Your task to perform on an android device: Open Reddit.com Image 0: 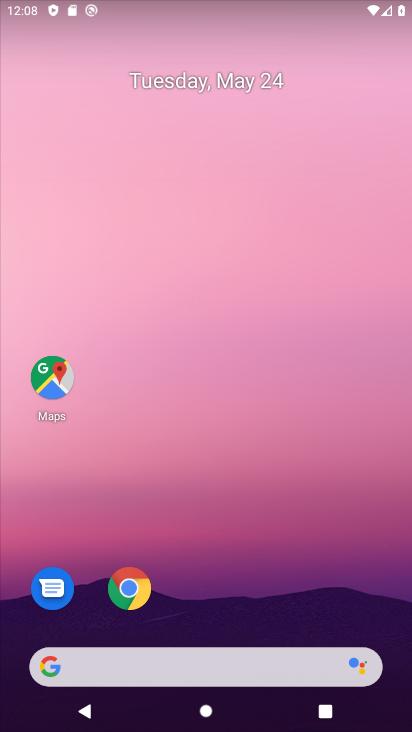
Step 0: click (115, 591)
Your task to perform on an android device: Open Reddit.com Image 1: 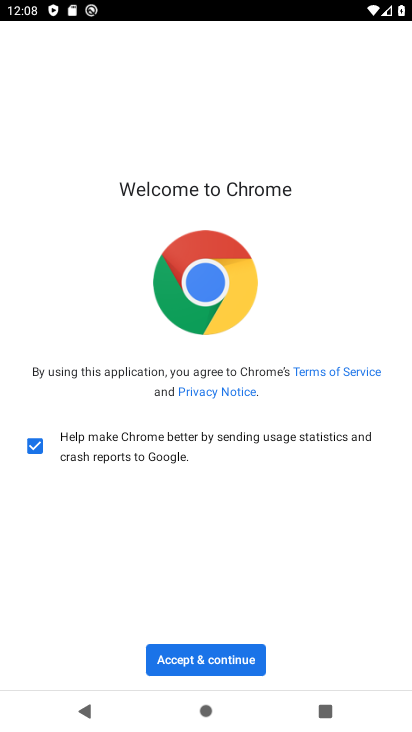
Step 1: click (180, 669)
Your task to perform on an android device: Open Reddit.com Image 2: 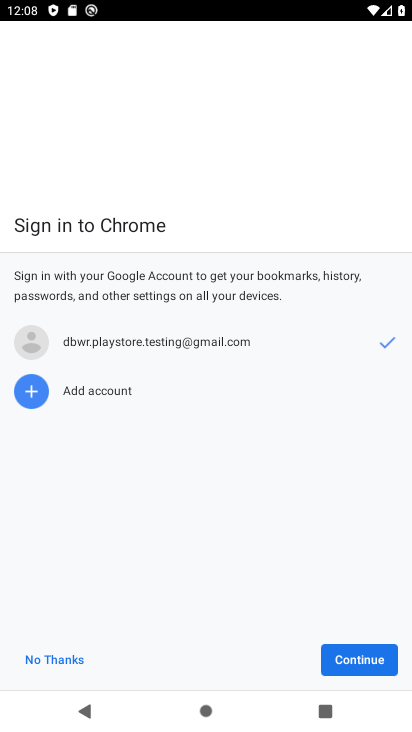
Step 2: click (350, 655)
Your task to perform on an android device: Open Reddit.com Image 3: 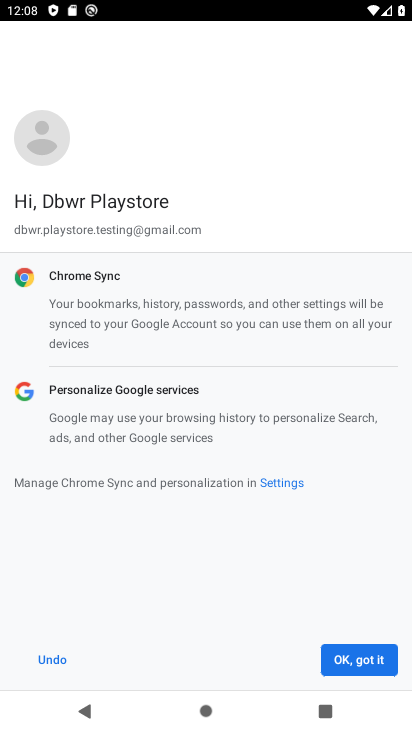
Step 3: click (350, 655)
Your task to perform on an android device: Open Reddit.com Image 4: 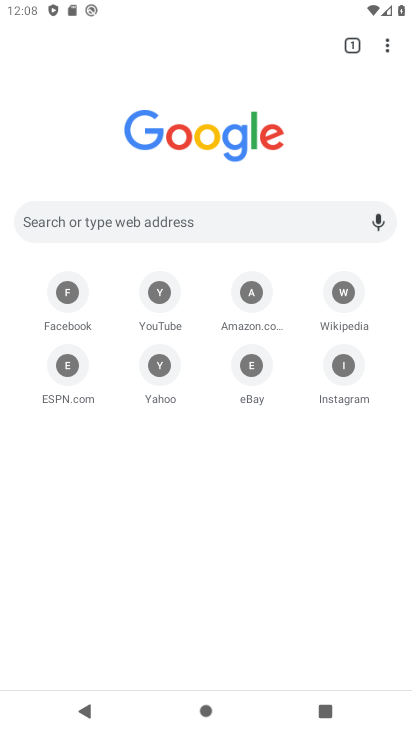
Step 4: click (350, 655)
Your task to perform on an android device: Open Reddit.com Image 5: 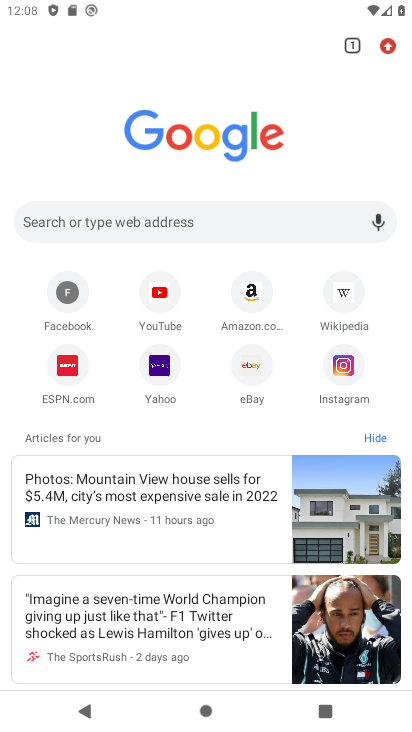
Step 5: click (350, 655)
Your task to perform on an android device: Open Reddit.com Image 6: 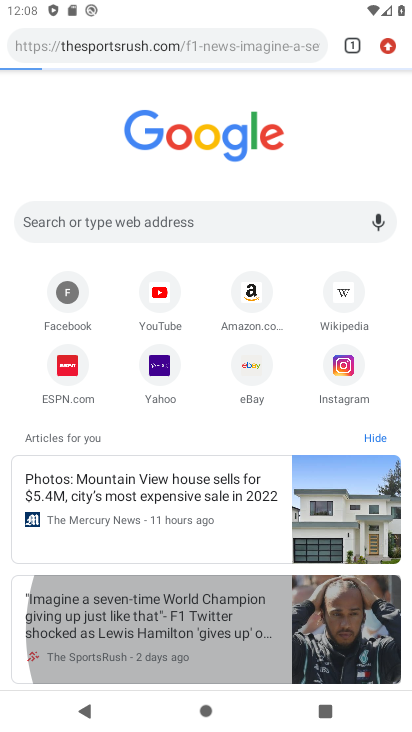
Step 6: click (350, 655)
Your task to perform on an android device: Open Reddit.com Image 7: 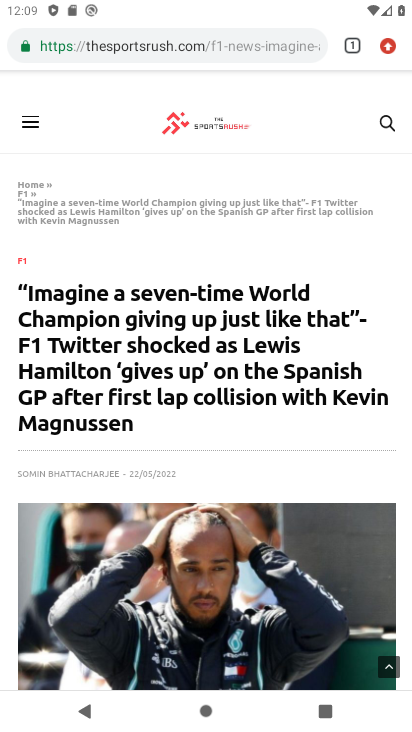
Step 7: click (350, 655)
Your task to perform on an android device: Open Reddit.com Image 8: 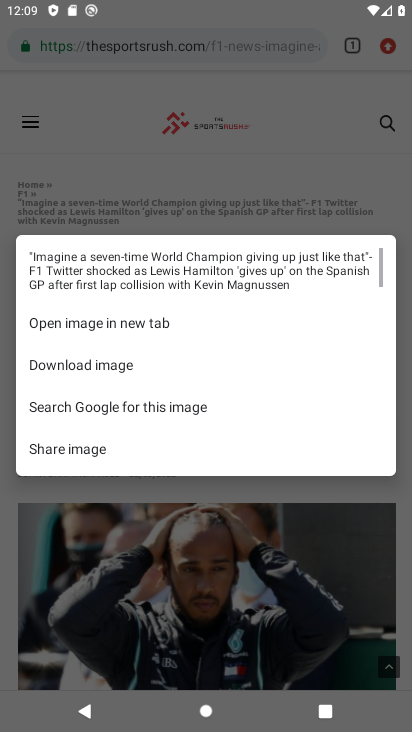
Step 8: click (350, 655)
Your task to perform on an android device: Open Reddit.com Image 9: 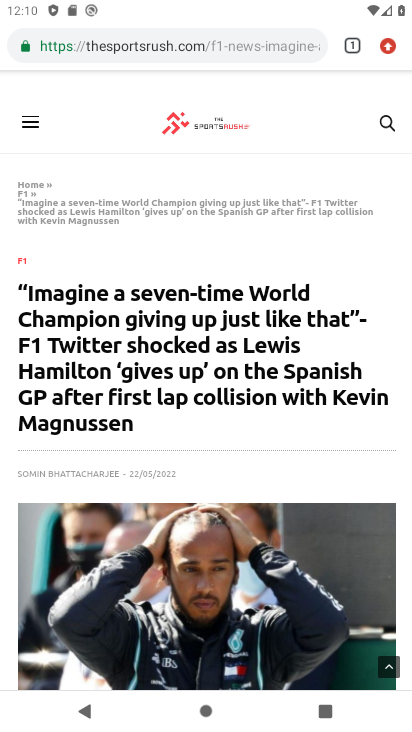
Step 9: click (216, 50)
Your task to perform on an android device: Open Reddit.com Image 10: 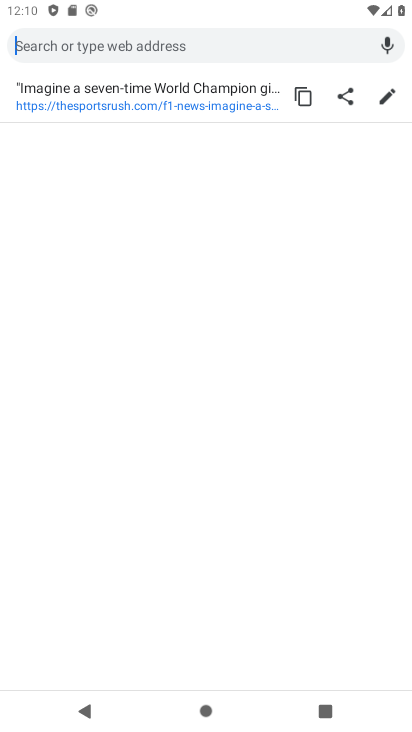
Step 10: click (199, 49)
Your task to perform on an android device: Open Reddit.com Image 11: 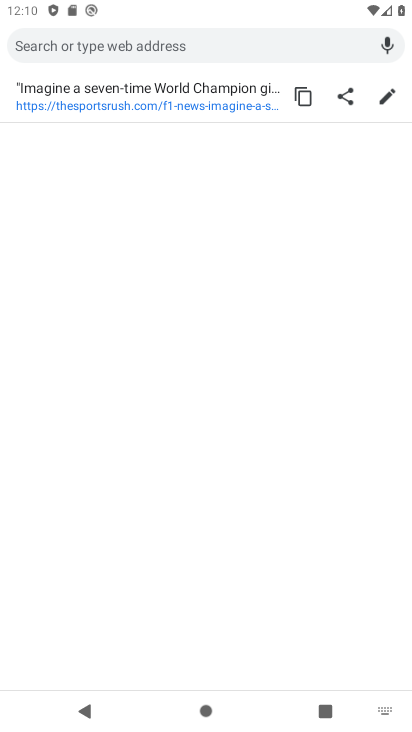
Step 11: click (253, 43)
Your task to perform on an android device: Open Reddit.com Image 12: 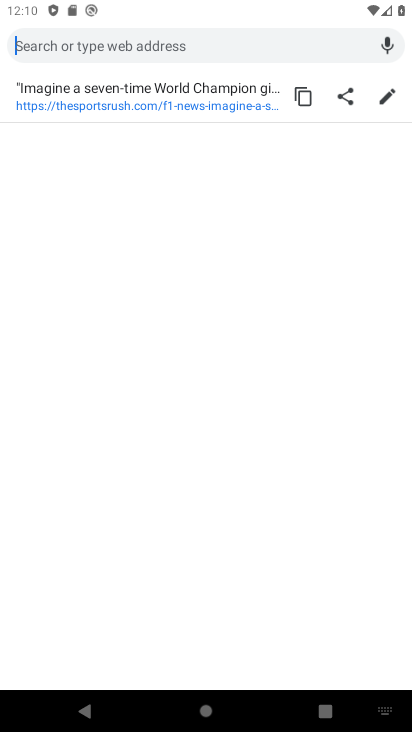
Step 12: click (63, 41)
Your task to perform on an android device: Open Reddit.com Image 13: 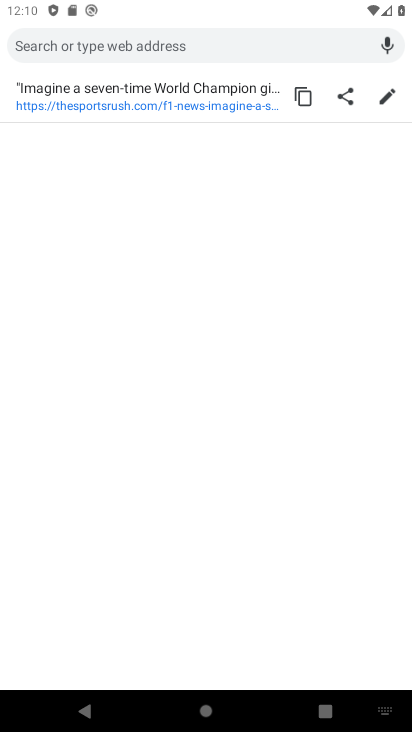
Step 13: click (62, 54)
Your task to perform on an android device: Open Reddit.com Image 14: 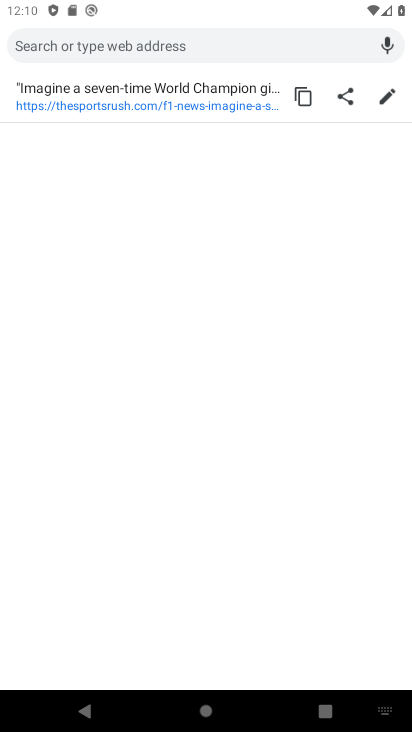
Step 14: press back button
Your task to perform on an android device: Open Reddit.com Image 15: 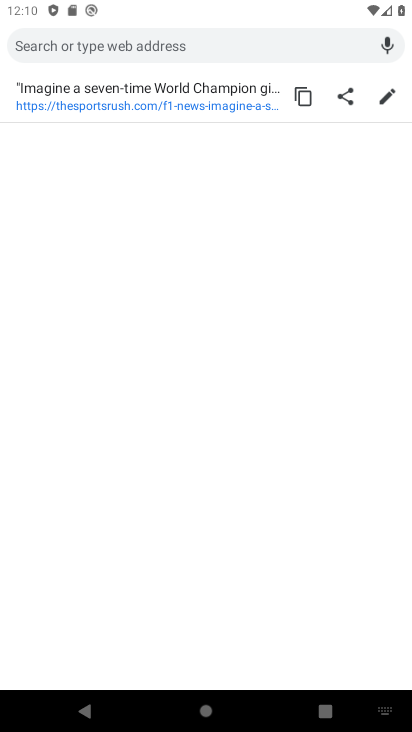
Step 15: click (137, 59)
Your task to perform on an android device: Open Reddit.com Image 16: 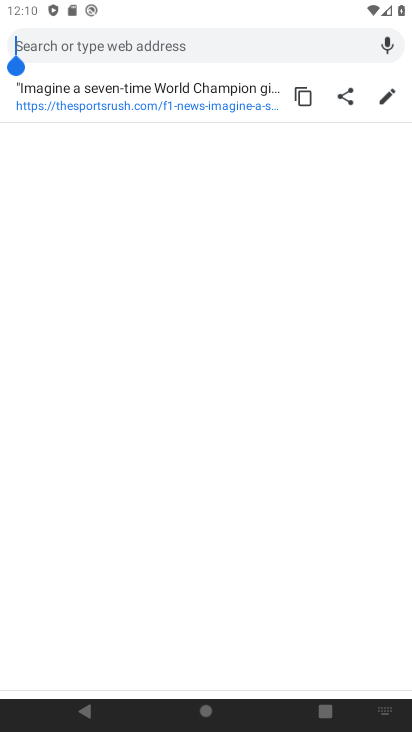
Step 16: click (147, 39)
Your task to perform on an android device: Open Reddit.com Image 17: 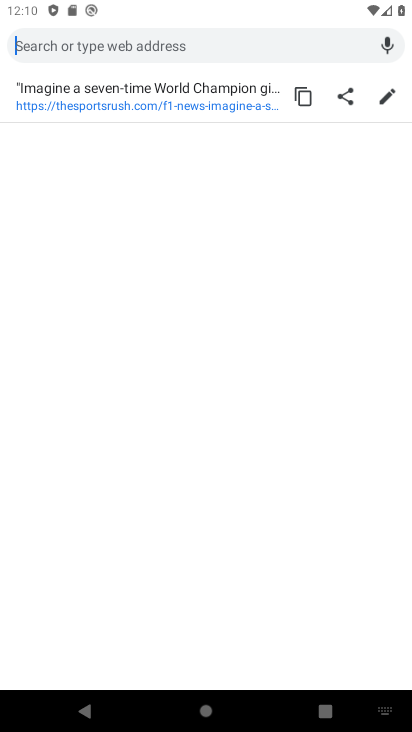
Step 17: type "www.reddit.com"
Your task to perform on an android device: Open Reddit.com Image 18: 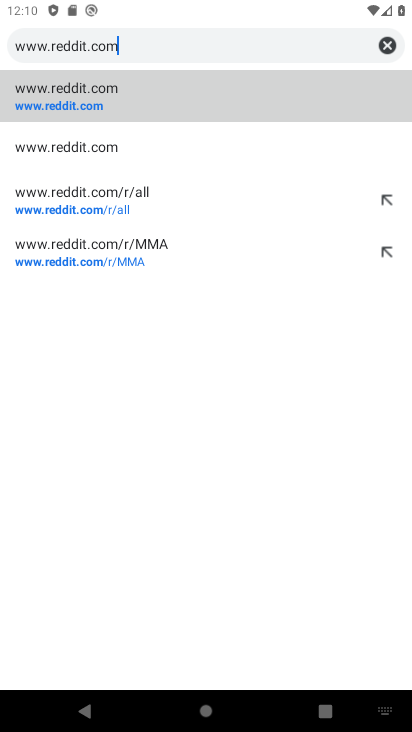
Step 18: click (96, 98)
Your task to perform on an android device: Open Reddit.com Image 19: 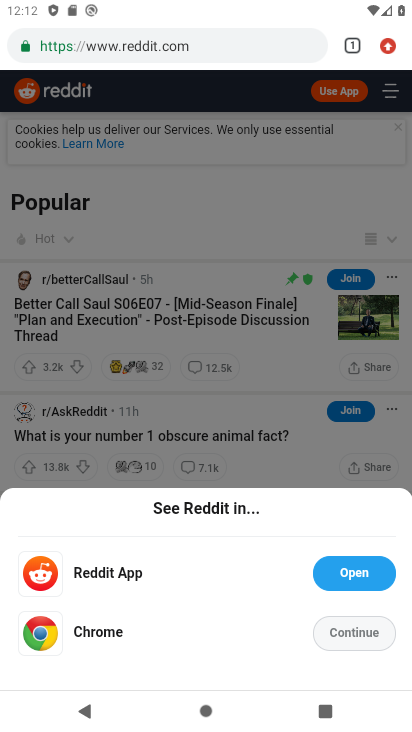
Step 19: task complete